Your task to perform on an android device: turn on notifications settings in the gmail app Image 0: 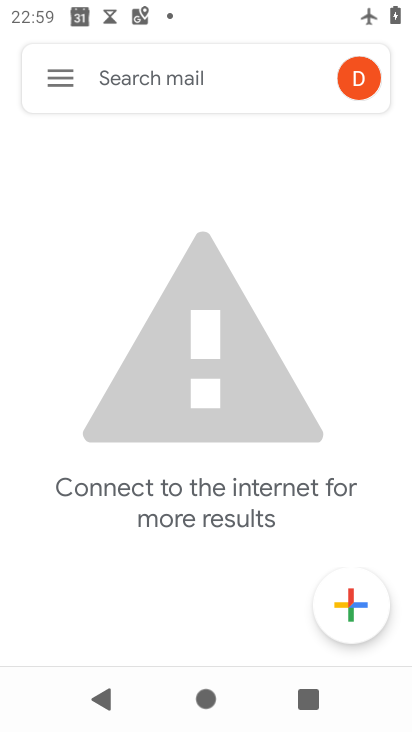
Step 0: click (62, 82)
Your task to perform on an android device: turn on notifications settings in the gmail app Image 1: 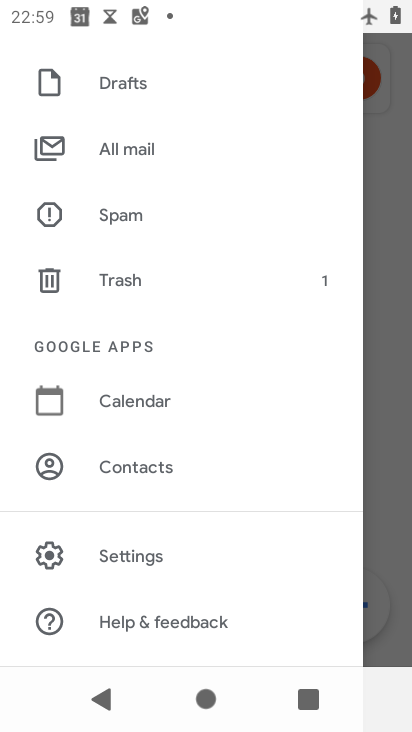
Step 1: click (158, 560)
Your task to perform on an android device: turn on notifications settings in the gmail app Image 2: 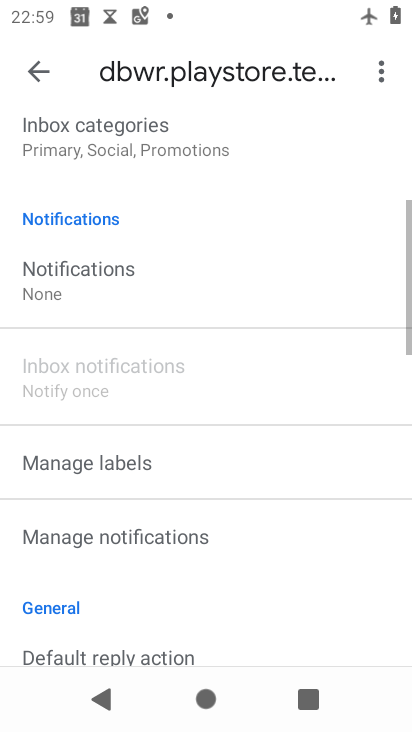
Step 2: click (135, 255)
Your task to perform on an android device: turn on notifications settings in the gmail app Image 3: 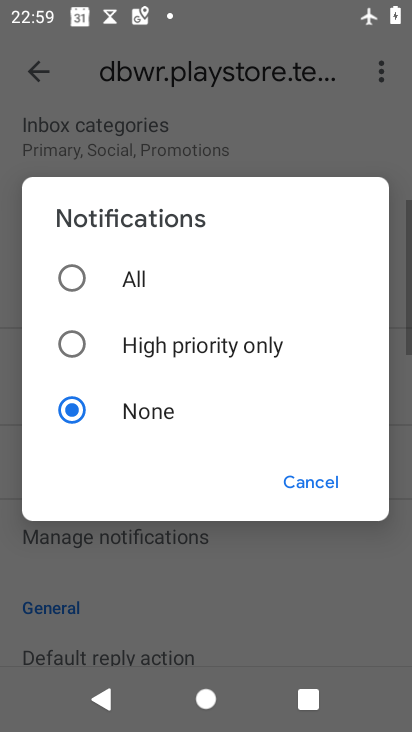
Step 3: click (121, 264)
Your task to perform on an android device: turn on notifications settings in the gmail app Image 4: 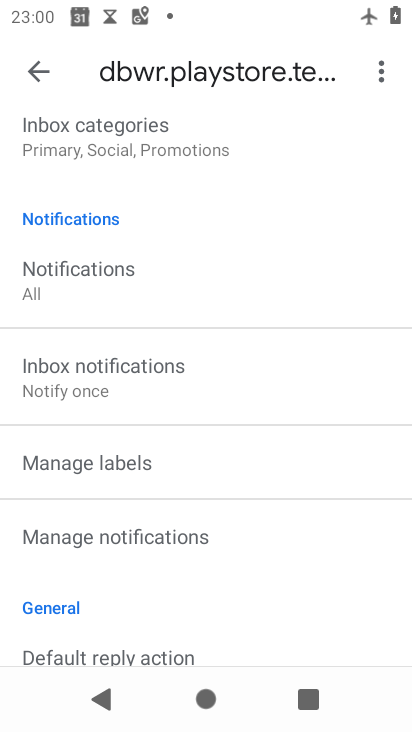
Step 4: task complete